Your task to perform on an android device: Search for "corsair k70" on costco.com, select the first entry, add it to the cart, then select checkout. Image 0: 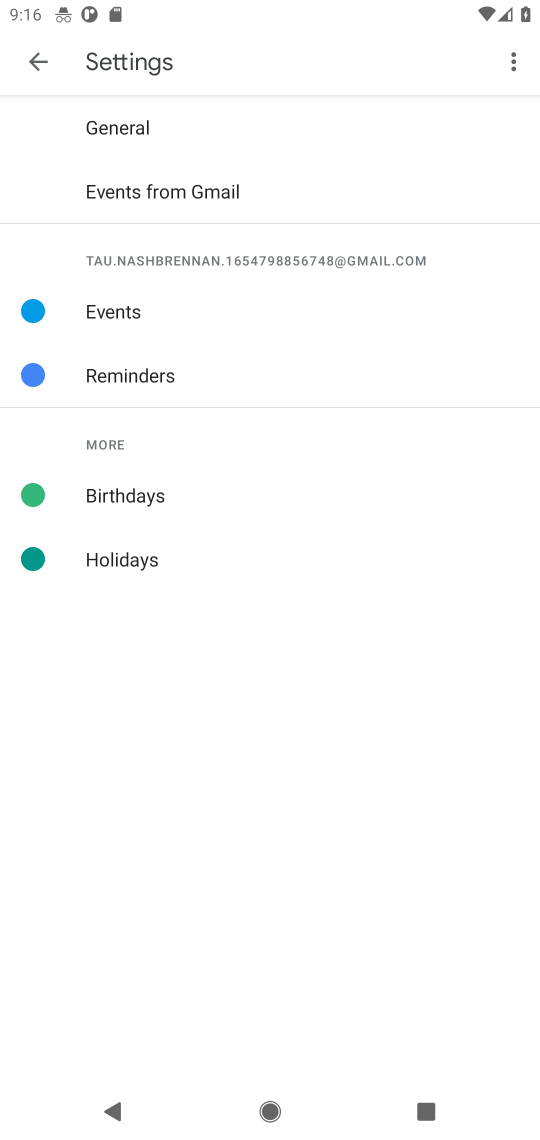
Step 0: press home button
Your task to perform on an android device: Search for "corsair k70" on costco.com, select the first entry, add it to the cart, then select checkout. Image 1: 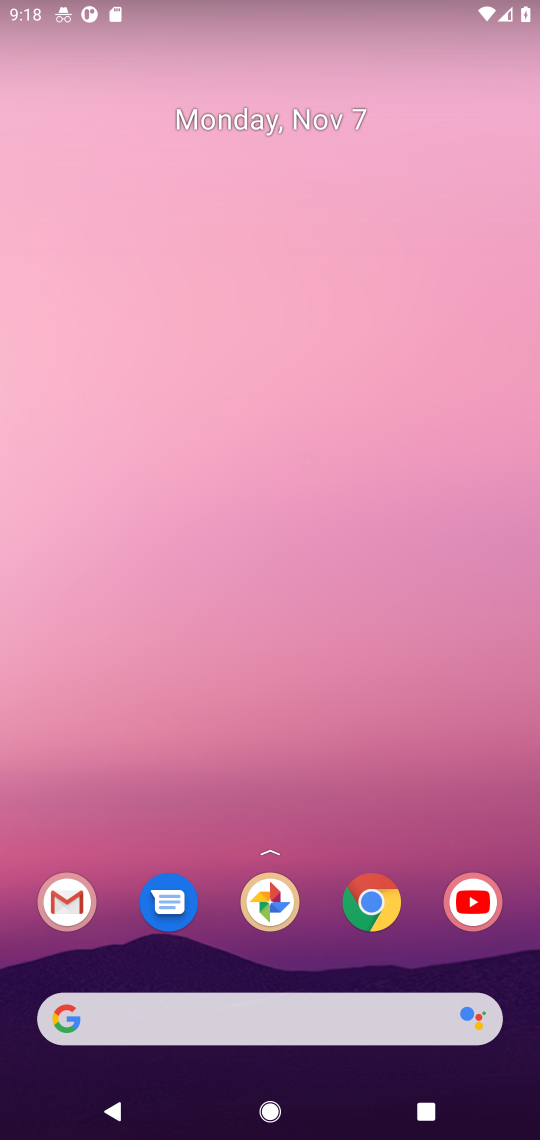
Step 1: click (375, 927)
Your task to perform on an android device: Search for "corsair k70" on costco.com, select the first entry, add it to the cart, then select checkout. Image 2: 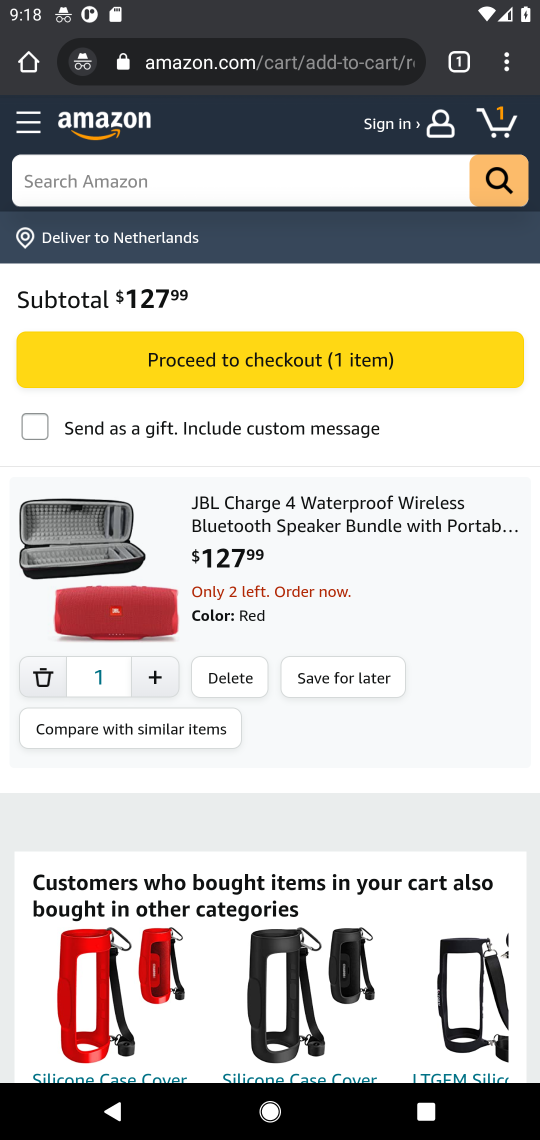
Step 2: click (202, 72)
Your task to perform on an android device: Search for "corsair k70" on costco.com, select the first entry, add it to the cart, then select checkout. Image 3: 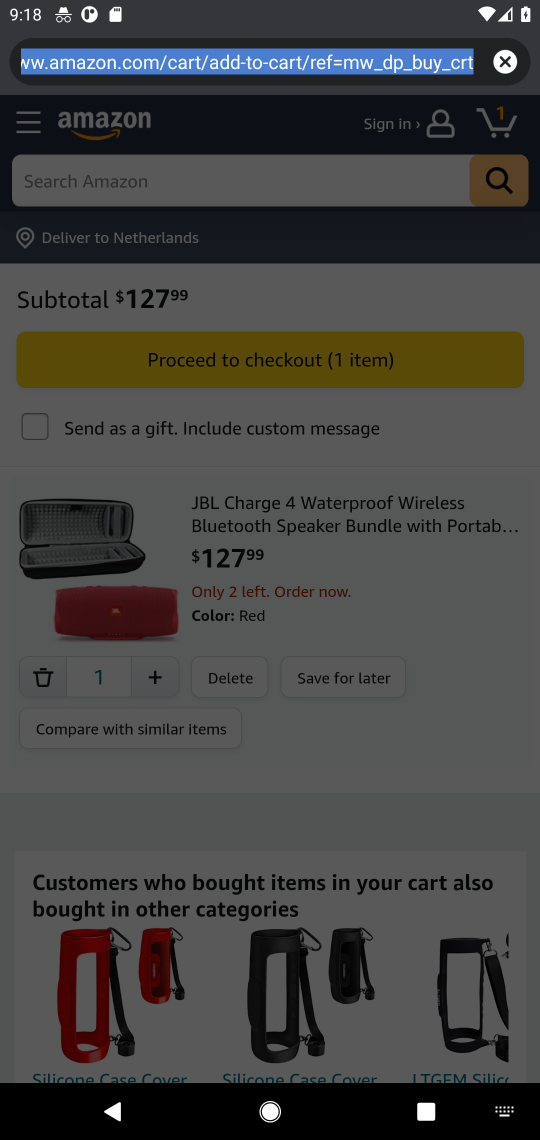
Step 3: type " costco.com"
Your task to perform on an android device: Search for "corsair k70" on costco.com, select the first entry, add it to the cart, then select checkout. Image 4: 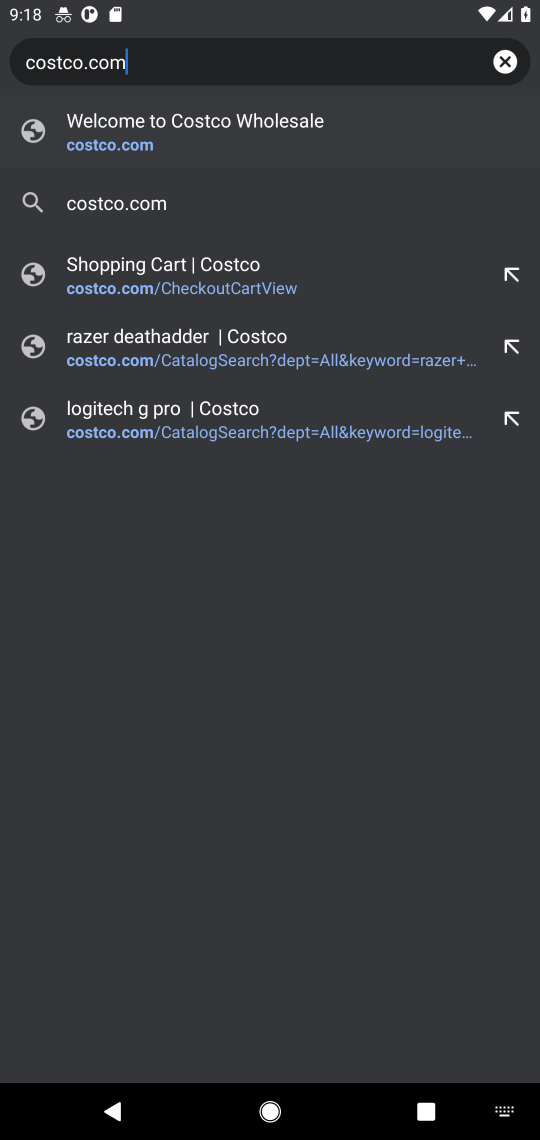
Step 4: click (104, 147)
Your task to perform on an android device: Search for "corsair k70" on costco.com, select the first entry, add it to the cart, then select checkout. Image 5: 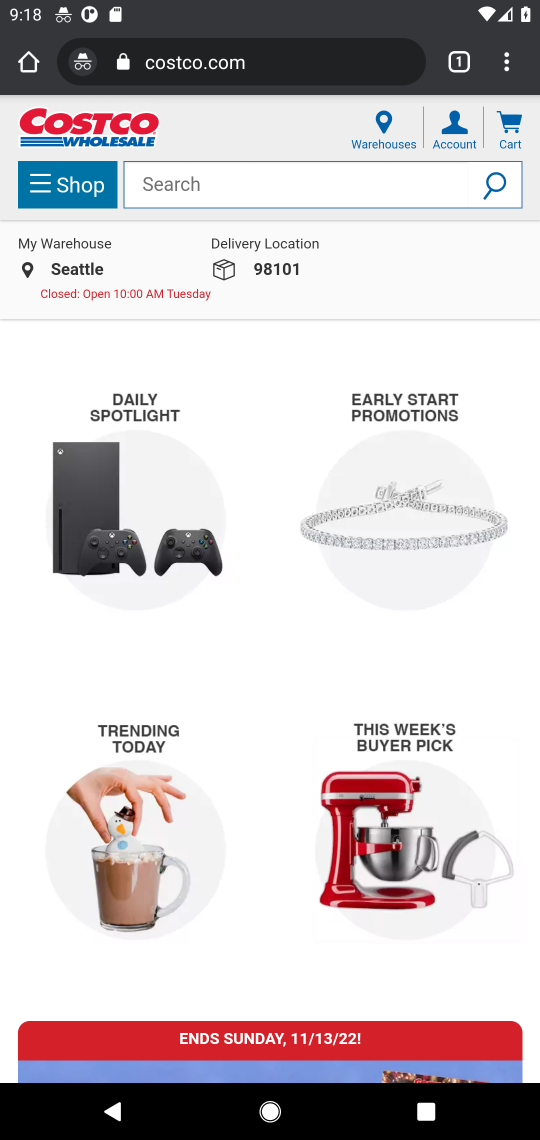
Step 5: click (201, 187)
Your task to perform on an android device: Search for "corsair k70" on costco.com, select the first entry, add it to the cart, then select checkout. Image 6: 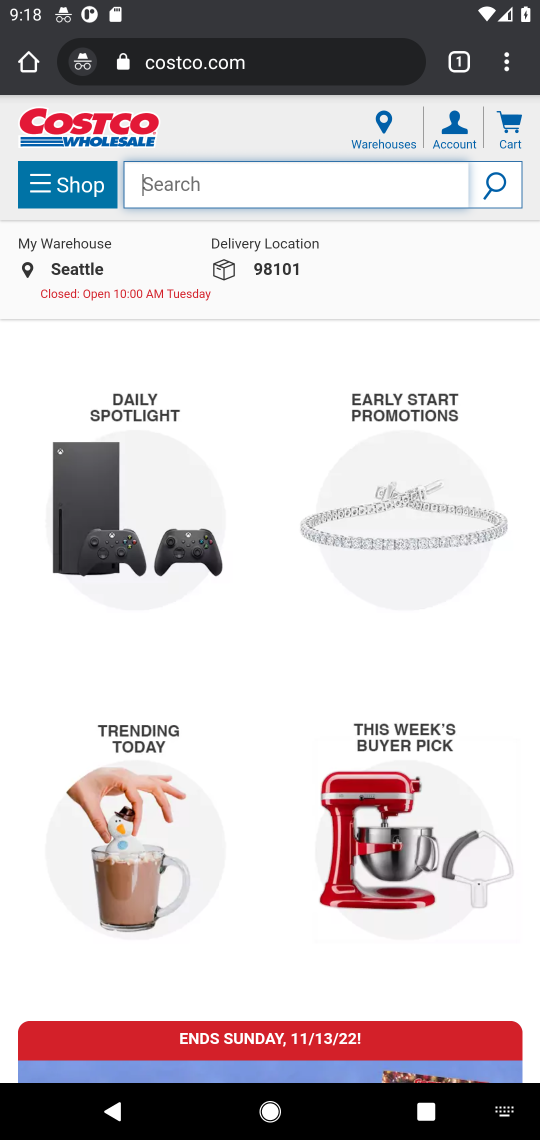
Step 6: type "corsair k70"
Your task to perform on an android device: Search for "corsair k70" on costco.com, select the first entry, add it to the cart, then select checkout. Image 7: 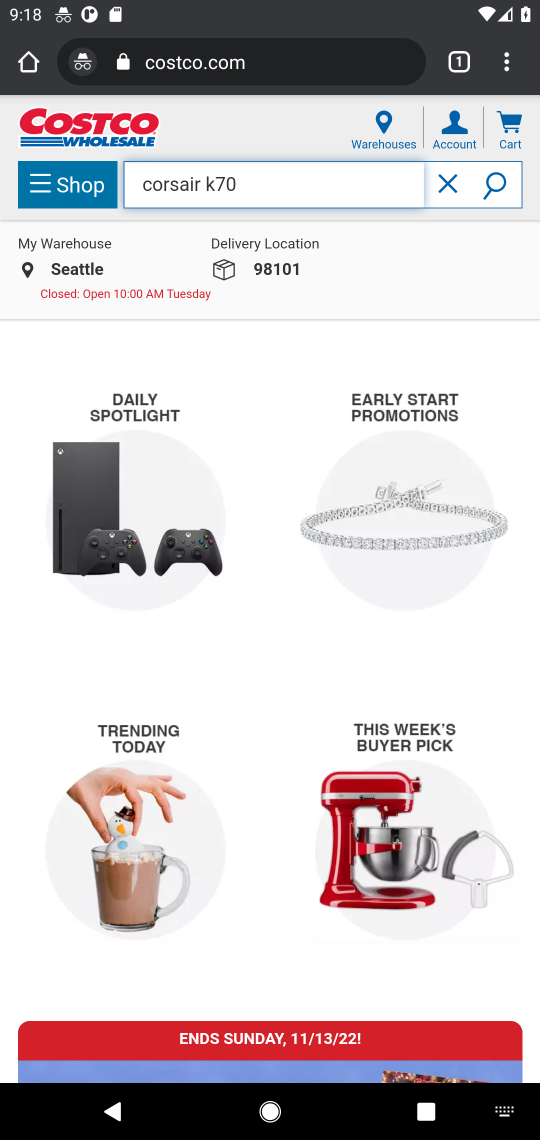
Step 7: click (502, 190)
Your task to perform on an android device: Search for "corsair k70" on costco.com, select the first entry, add it to the cart, then select checkout. Image 8: 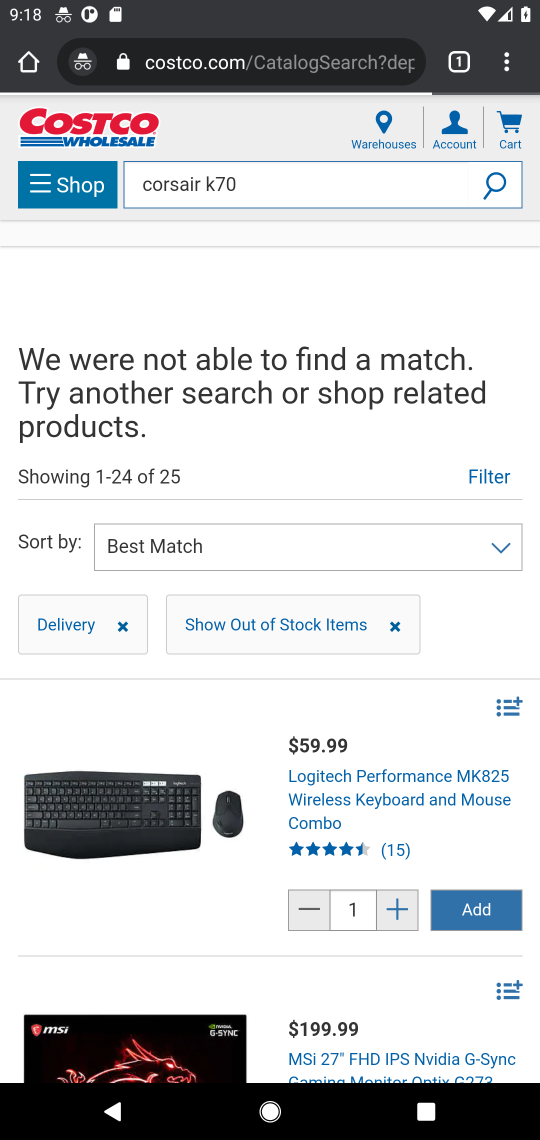
Step 8: task complete